Your task to perform on an android device: choose inbox layout in the gmail app Image 0: 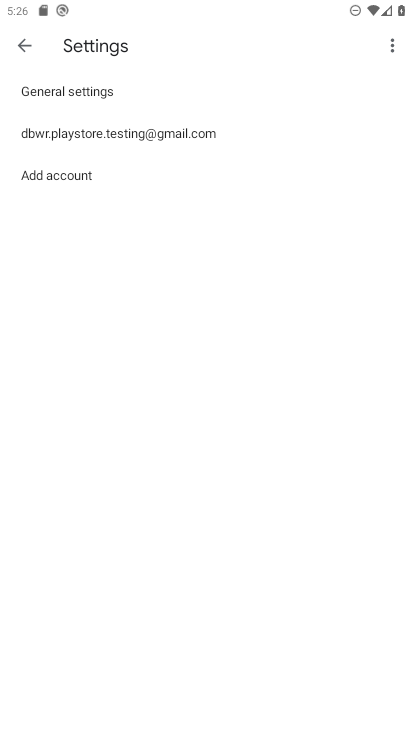
Step 0: press home button
Your task to perform on an android device: choose inbox layout in the gmail app Image 1: 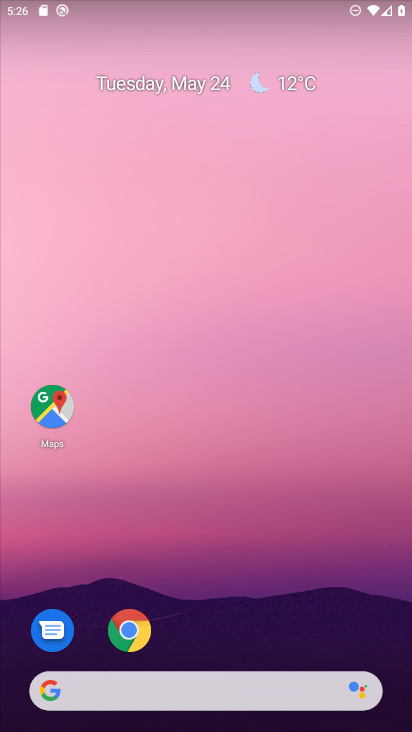
Step 1: drag from (175, 648) to (172, 186)
Your task to perform on an android device: choose inbox layout in the gmail app Image 2: 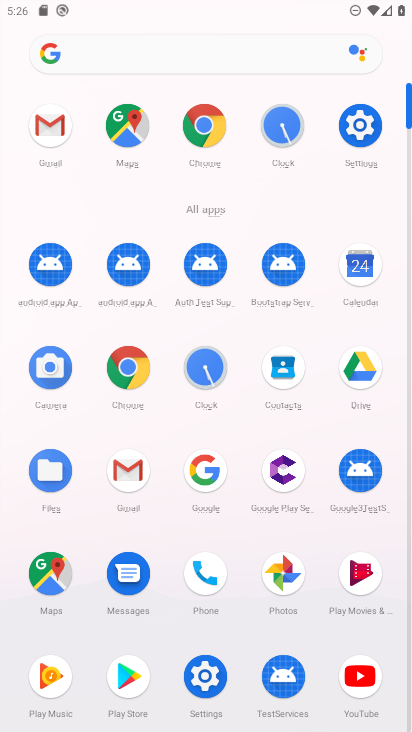
Step 2: click (45, 141)
Your task to perform on an android device: choose inbox layout in the gmail app Image 3: 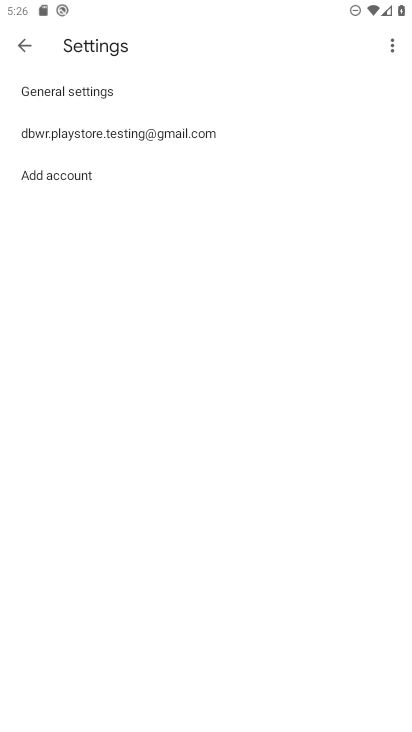
Step 3: click (46, 141)
Your task to perform on an android device: choose inbox layout in the gmail app Image 4: 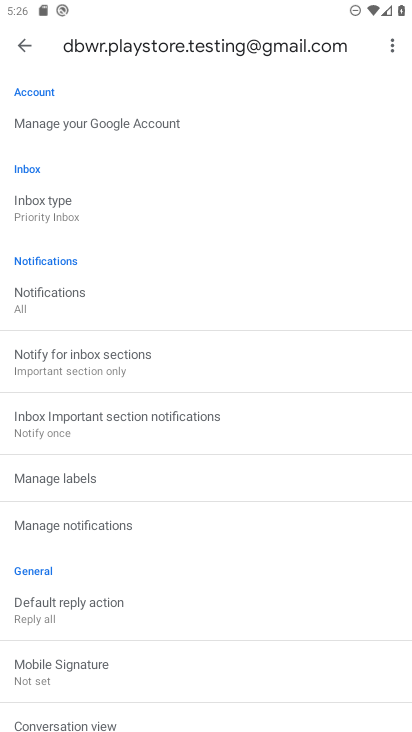
Step 4: drag from (173, 681) to (138, 323)
Your task to perform on an android device: choose inbox layout in the gmail app Image 5: 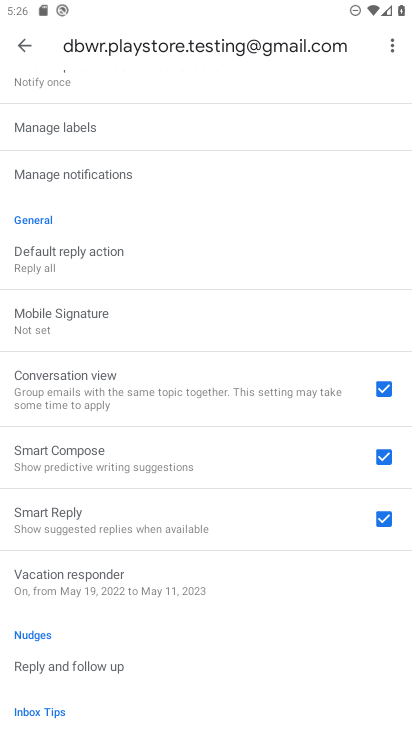
Step 5: drag from (134, 278) to (108, 671)
Your task to perform on an android device: choose inbox layout in the gmail app Image 6: 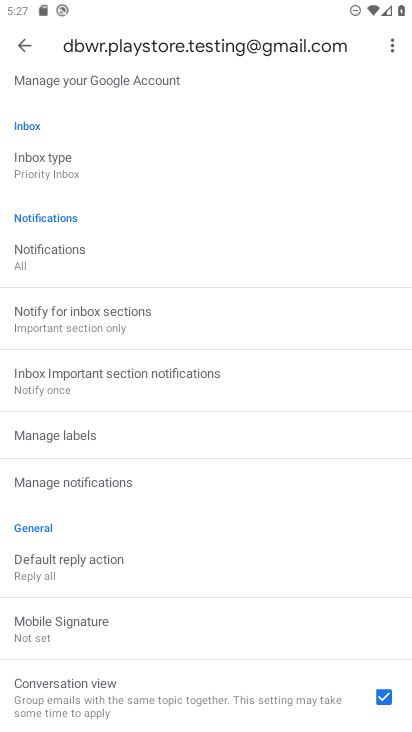
Step 6: drag from (82, 283) to (91, 607)
Your task to perform on an android device: choose inbox layout in the gmail app Image 7: 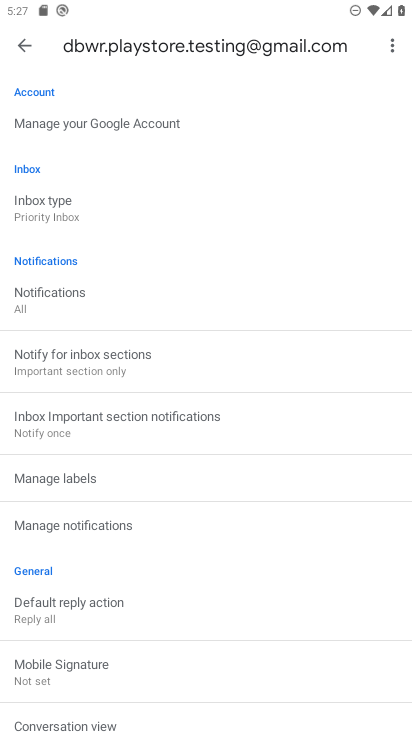
Step 7: click (21, 42)
Your task to perform on an android device: choose inbox layout in the gmail app Image 8: 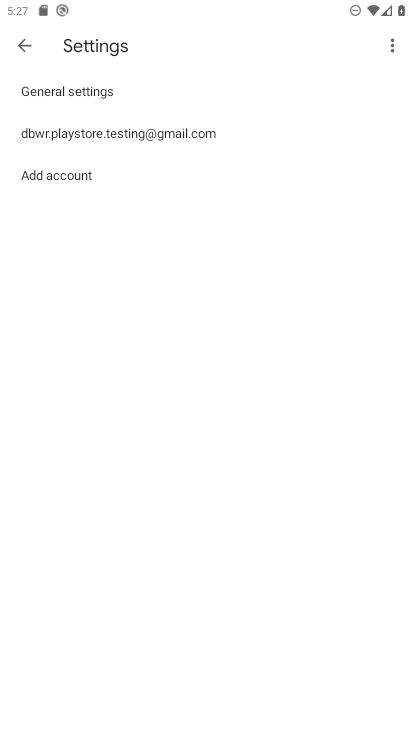
Step 8: click (15, 64)
Your task to perform on an android device: choose inbox layout in the gmail app Image 9: 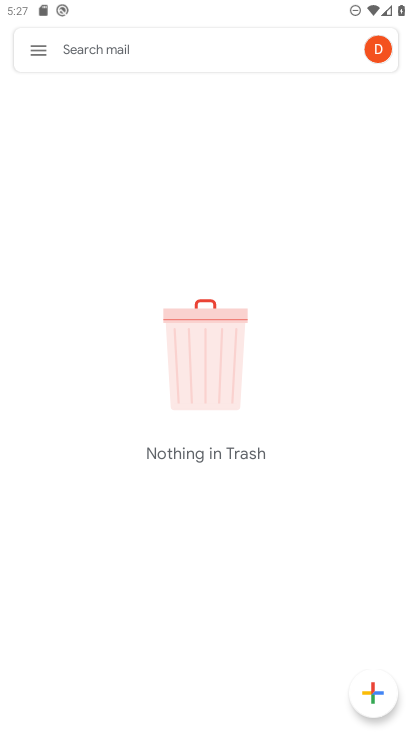
Step 9: click (31, 55)
Your task to perform on an android device: choose inbox layout in the gmail app Image 10: 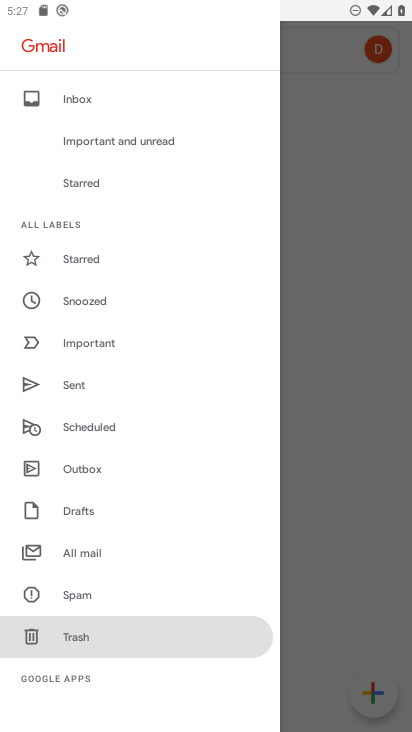
Step 10: drag from (134, 670) to (146, 255)
Your task to perform on an android device: choose inbox layout in the gmail app Image 11: 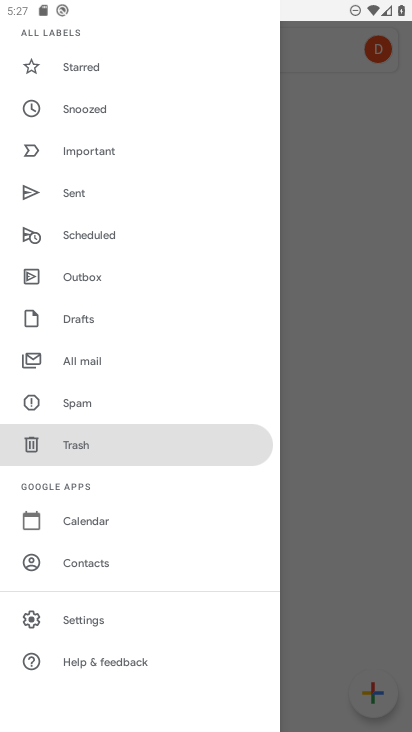
Step 11: click (77, 635)
Your task to perform on an android device: choose inbox layout in the gmail app Image 12: 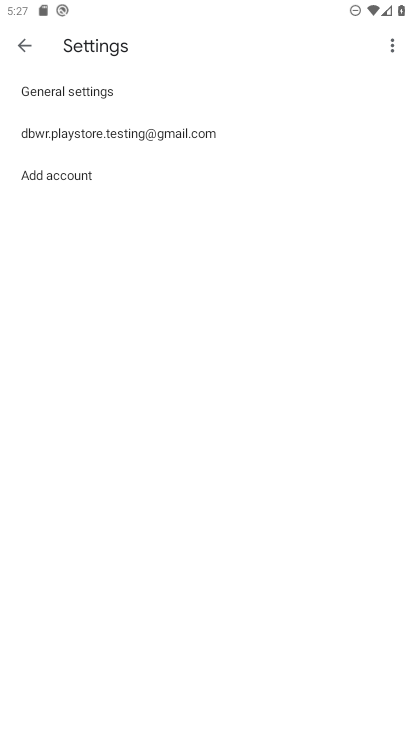
Step 12: click (84, 138)
Your task to perform on an android device: choose inbox layout in the gmail app Image 13: 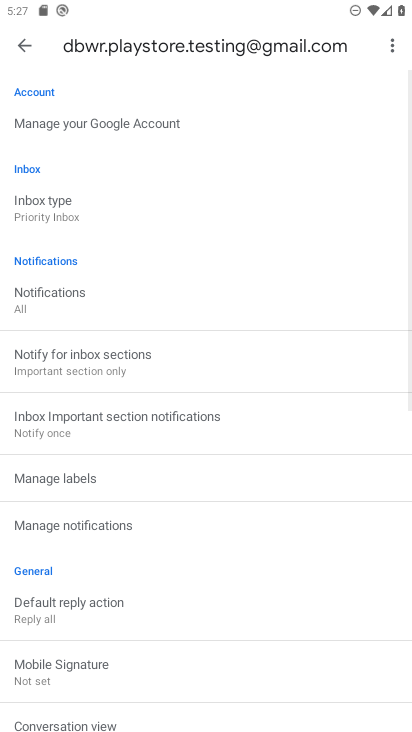
Step 13: click (48, 210)
Your task to perform on an android device: choose inbox layout in the gmail app Image 14: 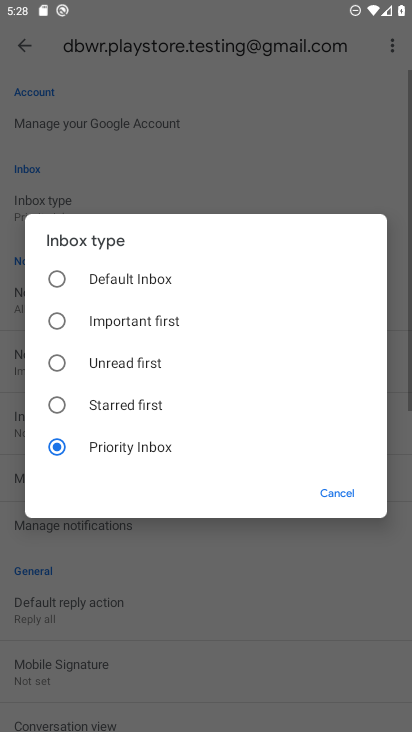
Step 14: click (53, 270)
Your task to perform on an android device: choose inbox layout in the gmail app Image 15: 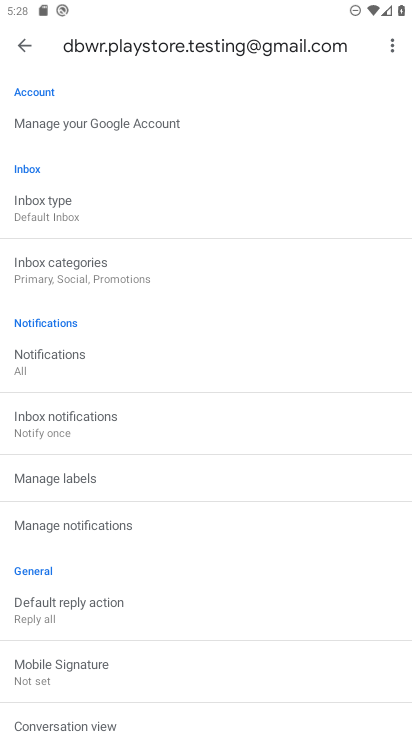
Step 15: press home button
Your task to perform on an android device: choose inbox layout in the gmail app Image 16: 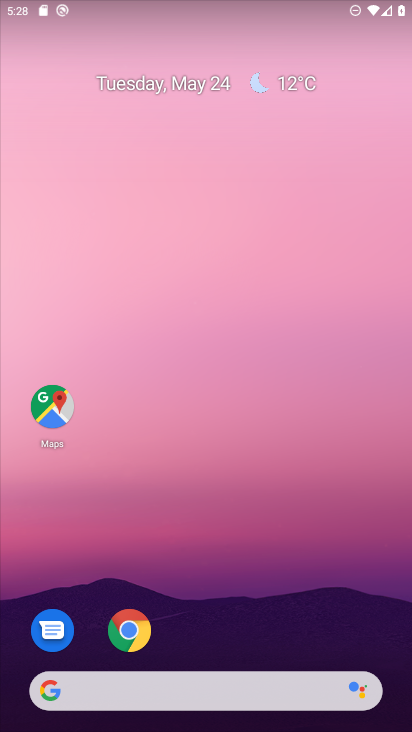
Step 16: drag from (197, 625) to (164, 71)
Your task to perform on an android device: choose inbox layout in the gmail app Image 17: 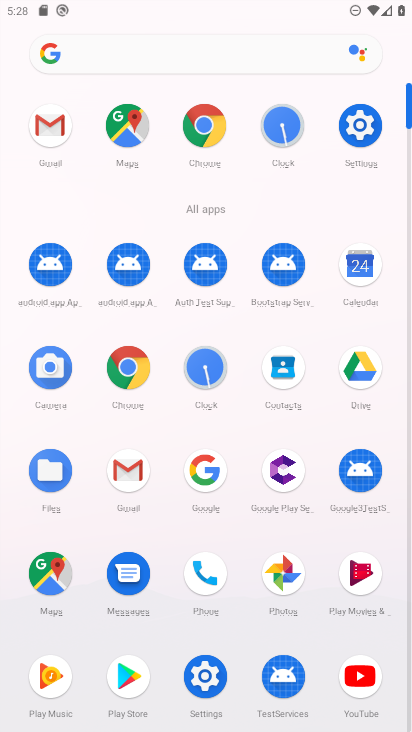
Step 17: click (53, 141)
Your task to perform on an android device: choose inbox layout in the gmail app Image 18: 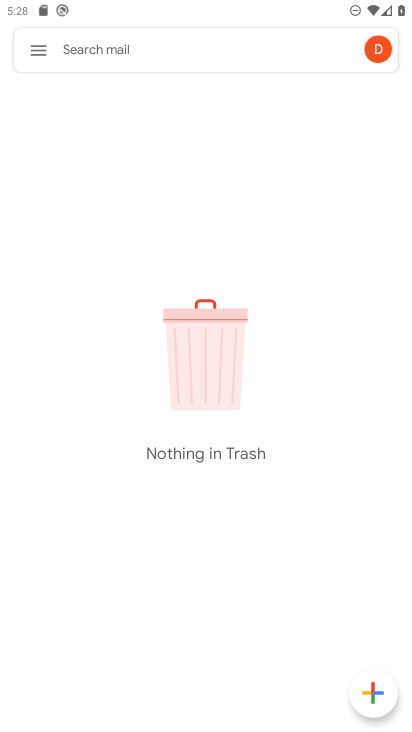
Step 18: click (34, 46)
Your task to perform on an android device: choose inbox layout in the gmail app Image 19: 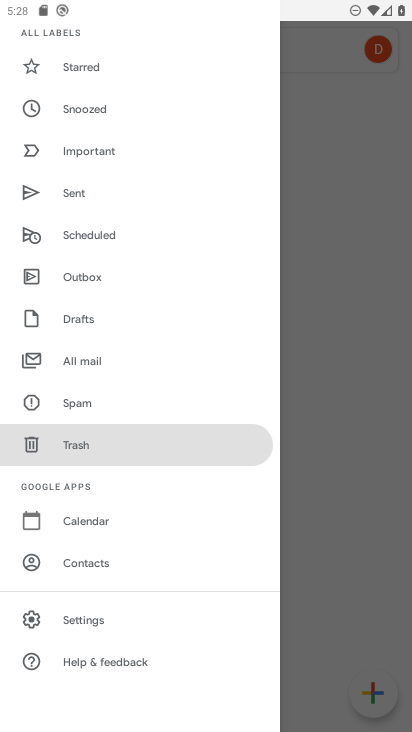
Step 19: click (86, 618)
Your task to perform on an android device: choose inbox layout in the gmail app Image 20: 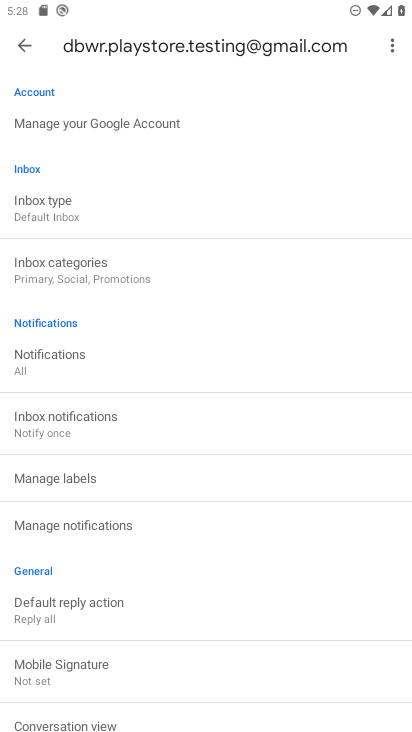
Step 20: click (35, 211)
Your task to perform on an android device: choose inbox layout in the gmail app Image 21: 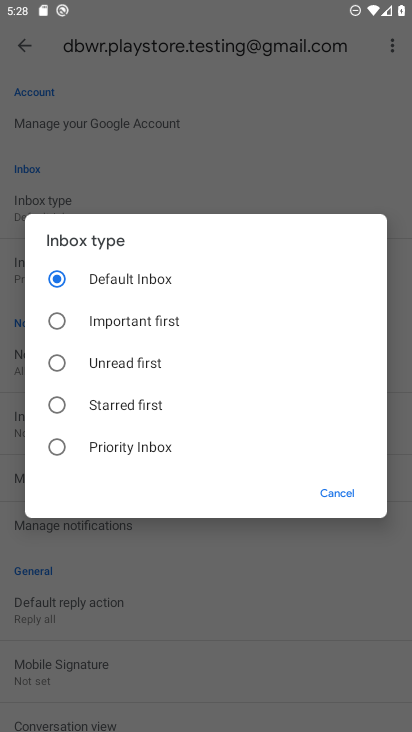
Step 21: click (66, 327)
Your task to perform on an android device: choose inbox layout in the gmail app Image 22: 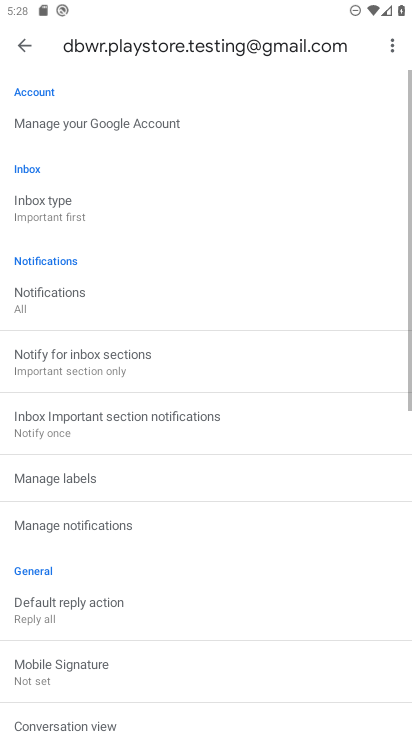
Step 22: task complete